Your task to perform on an android device: Go to settings Image 0: 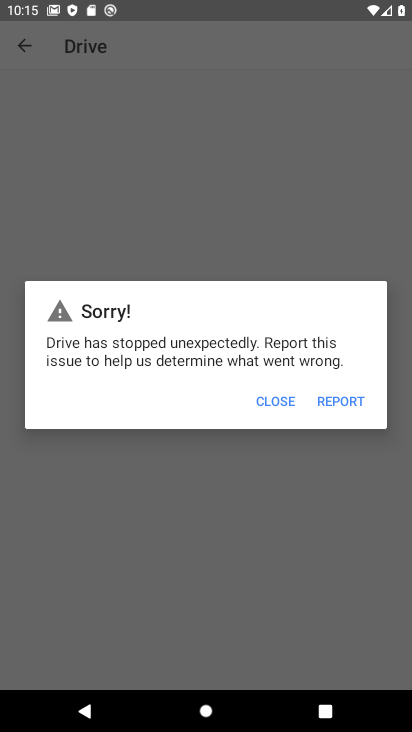
Step 0: press home button
Your task to perform on an android device: Go to settings Image 1: 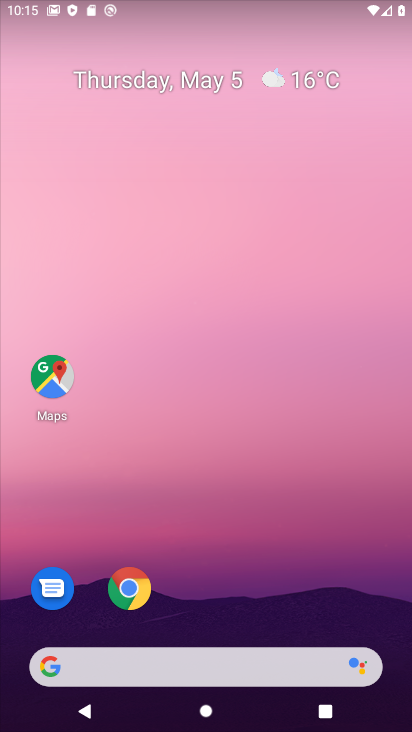
Step 1: drag from (285, 590) to (253, 0)
Your task to perform on an android device: Go to settings Image 2: 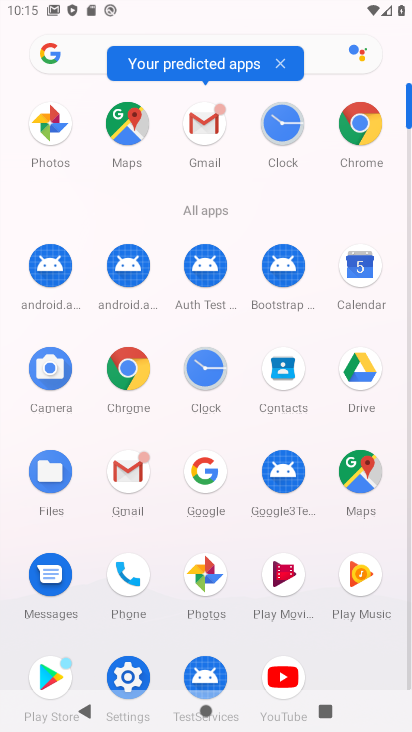
Step 2: click (130, 671)
Your task to perform on an android device: Go to settings Image 3: 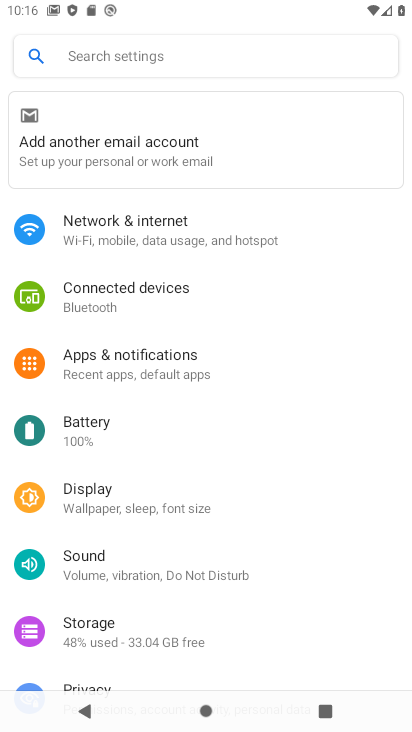
Step 3: task complete